Your task to perform on an android device: turn off notifications in google photos Image 0: 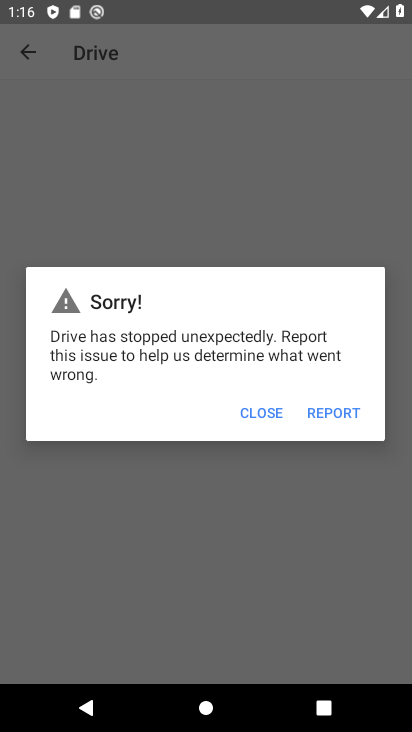
Step 0: press home button
Your task to perform on an android device: turn off notifications in google photos Image 1: 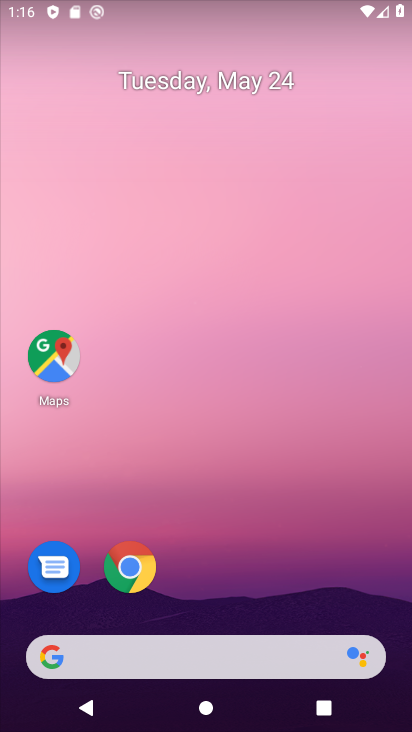
Step 1: drag from (197, 626) to (245, 2)
Your task to perform on an android device: turn off notifications in google photos Image 2: 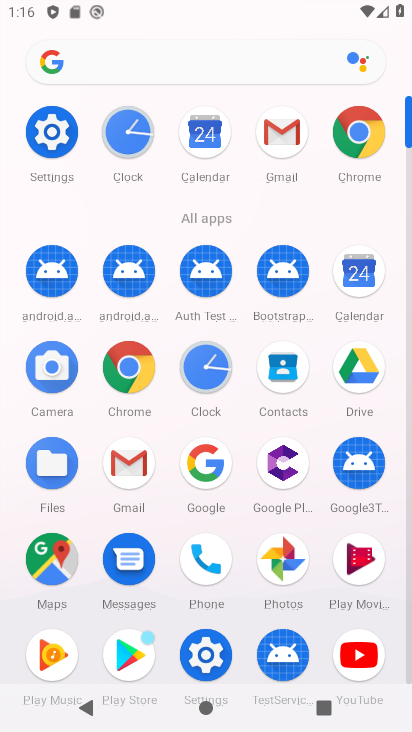
Step 2: click (291, 568)
Your task to perform on an android device: turn off notifications in google photos Image 3: 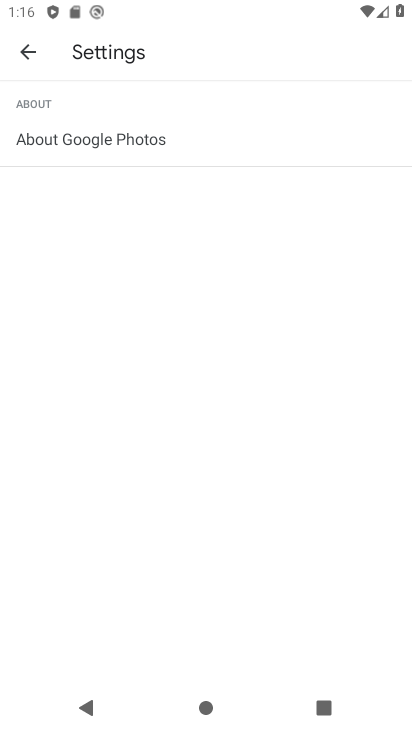
Step 3: click (29, 44)
Your task to perform on an android device: turn off notifications in google photos Image 4: 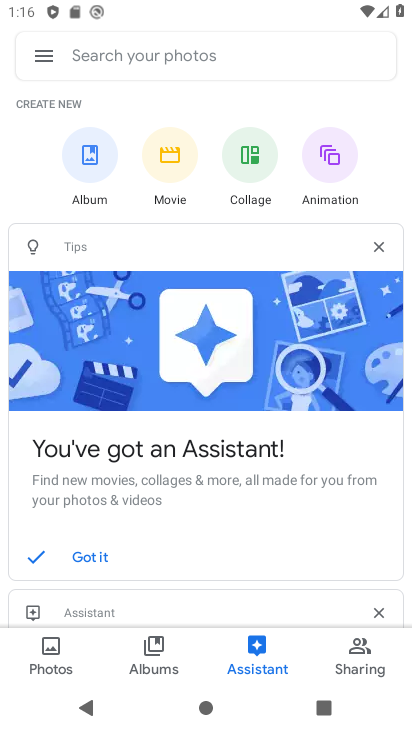
Step 4: click (41, 48)
Your task to perform on an android device: turn off notifications in google photos Image 5: 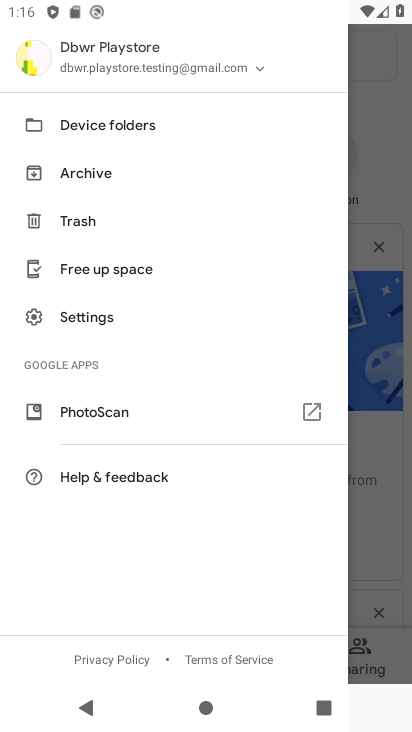
Step 5: click (91, 316)
Your task to perform on an android device: turn off notifications in google photos Image 6: 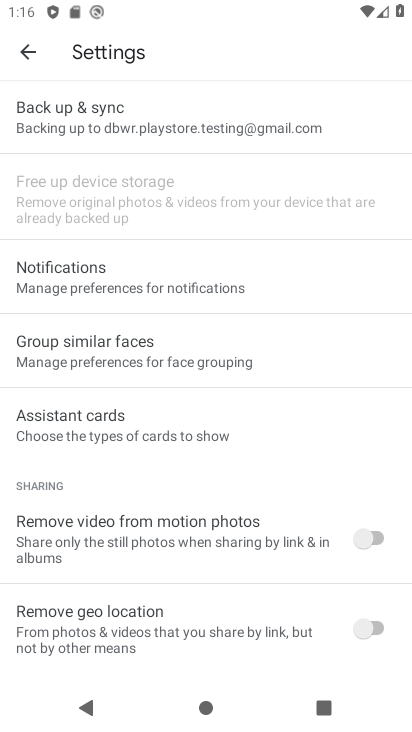
Step 6: click (86, 269)
Your task to perform on an android device: turn off notifications in google photos Image 7: 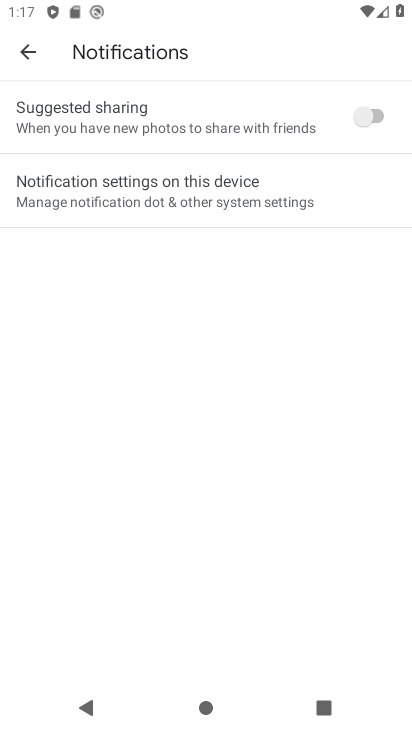
Step 7: click (176, 199)
Your task to perform on an android device: turn off notifications in google photos Image 8: 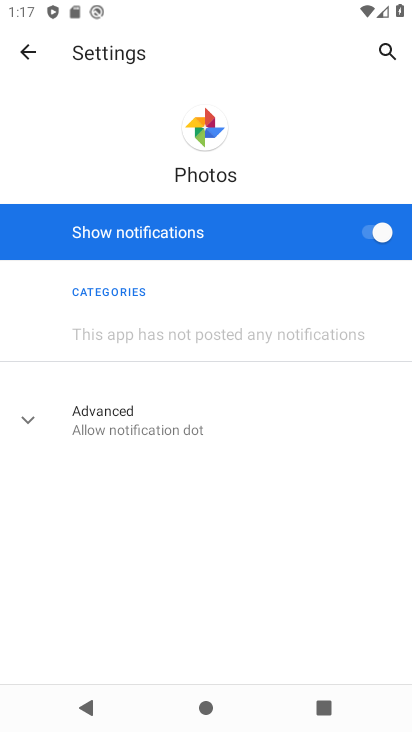
Step 8: click (361, 229)
Your task to perform on an android device: turn off notifications in google photos Image 9: 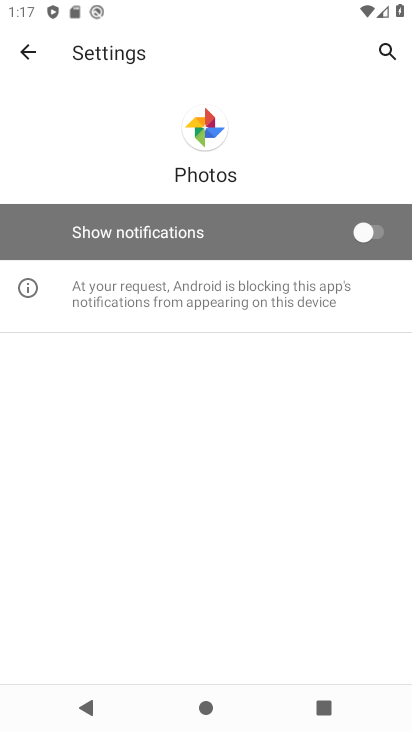
Step 9: task complete